Your task to perform on an android device: set the timer Image 0: 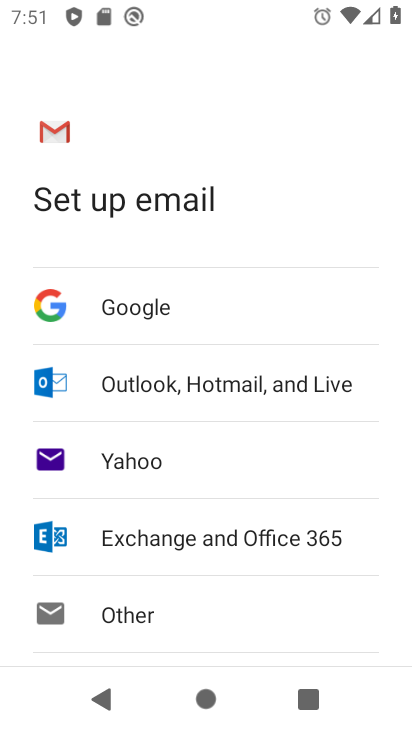
Step 0: press home button
Your task to perform on an android device: set the timer Image 1: 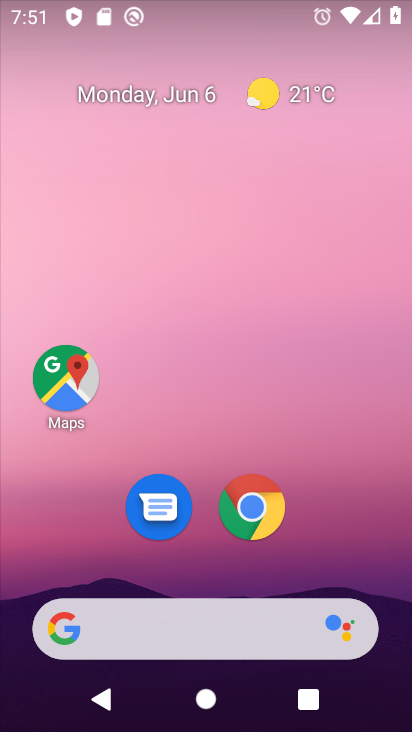
Step 1: drag from (369, 554) to (271, 26)
Your task to perform on an android device: set the timer Image 2: 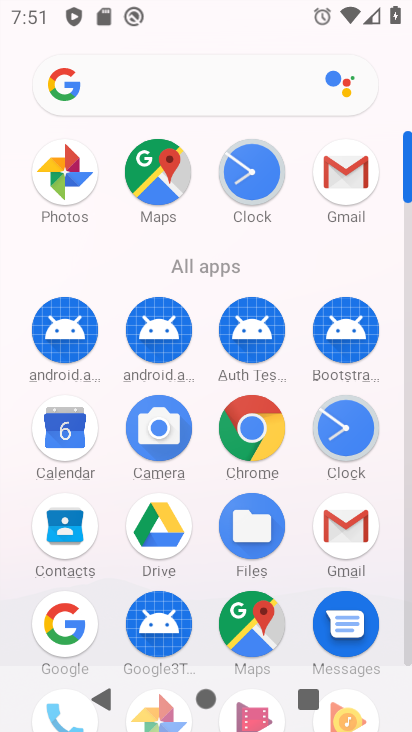
Step 2: click (355, 425)
Your task to perform on an android device: set the timer Image 3: 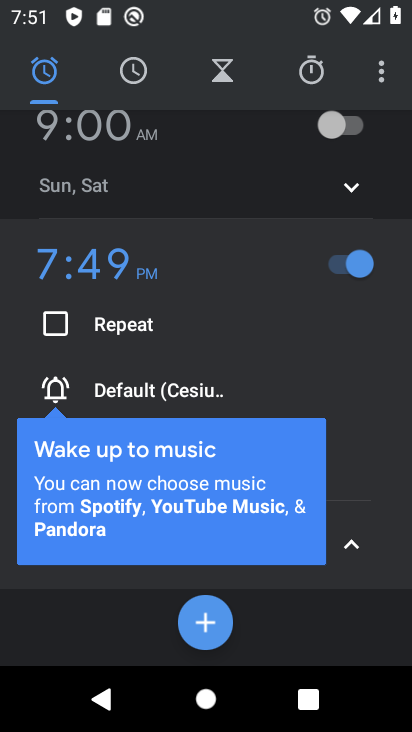
Step 3: click (211, 82)
Your task to perform on an android device: set the timer Image 4: 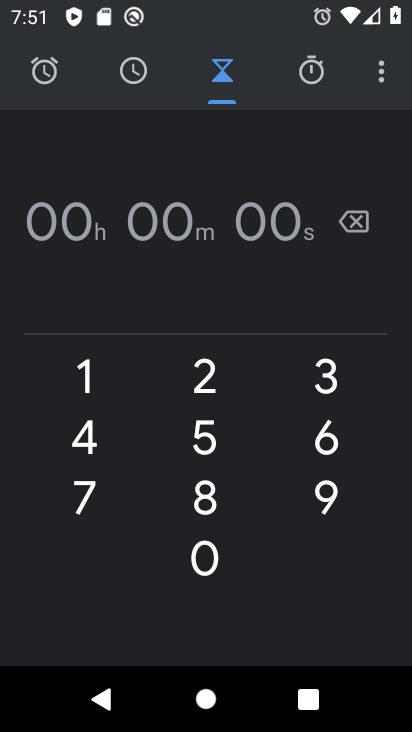
Step 4: click (101, 388)
Your task to perform on an android device: set the timer Image 5: 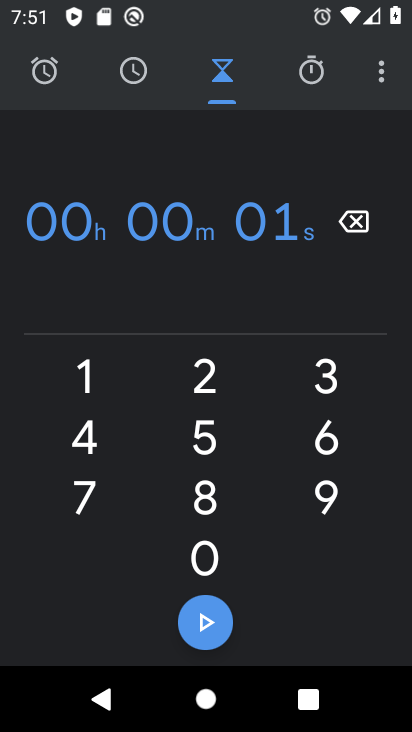
Step 5: click (322, 507)
Your task to perform on an android device: set the timer Image 6: 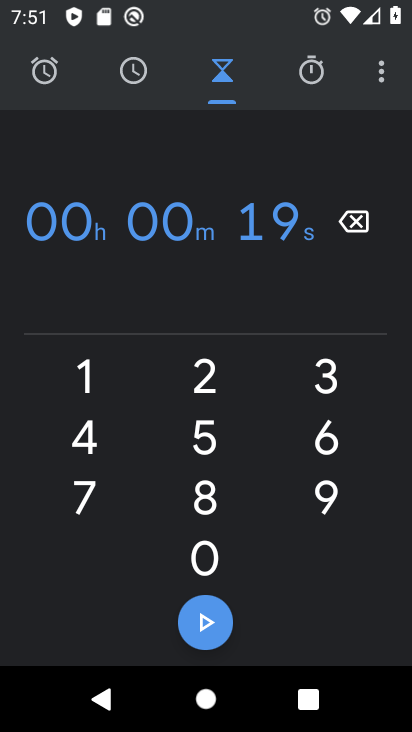
Step 6: click (341, 375)
Your task to perform on an android device: set the timer Image 7: 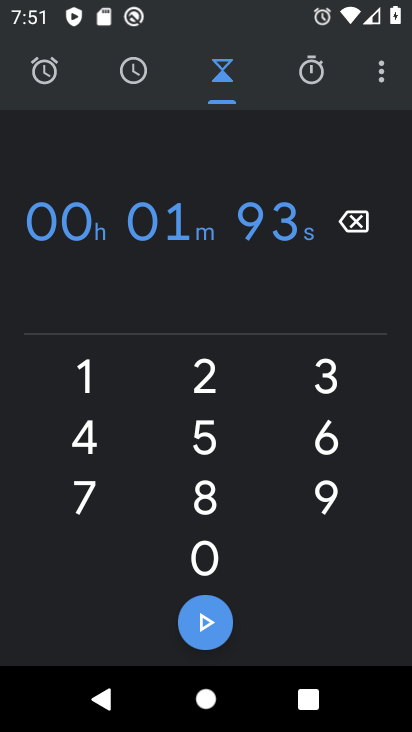
Step 7: click (69, 505)
Your task to perform on an android device: set the timer Image 8: 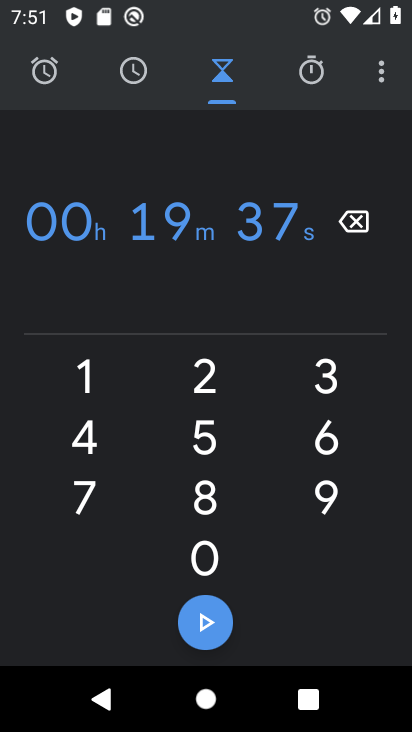
Step 8: click (208, 391)
Your task to perform on an android device: set the timer Image 9: 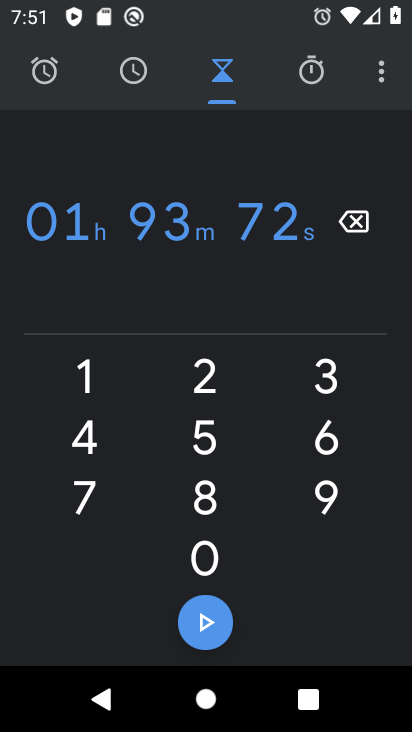
Step 9: click (217, 557)
Your task to perform on an android device: set the timer Image 10: 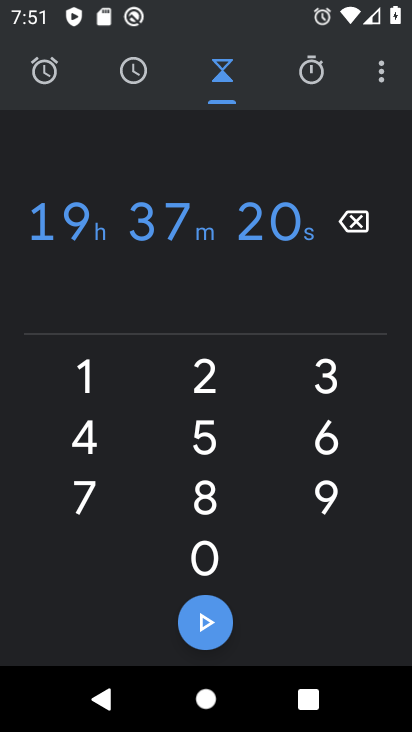
Step 10: click (193, 645)
Your task to perform on an android device: set the timer Image 11: 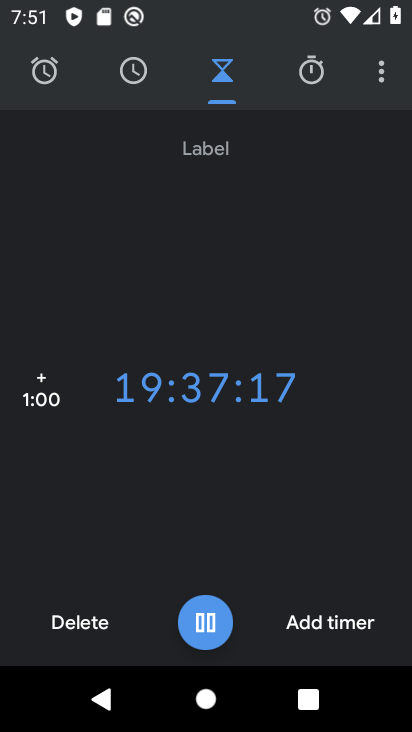
Step 11: task complete